Your task to perform on an android device: Open location settings Image 0: 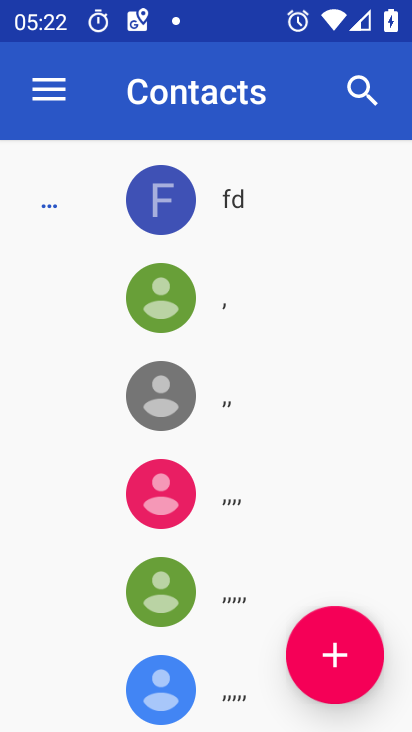
Step 0: press home button
Your task to perform on an android device: Open location settings Image 1: 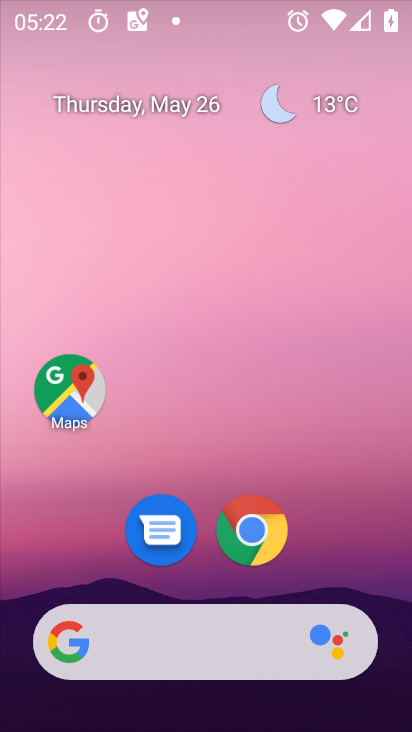
Step 1: drag from (356, 670) to (405, 58)
Your task to perform on an android device: Open location settings Image 2: 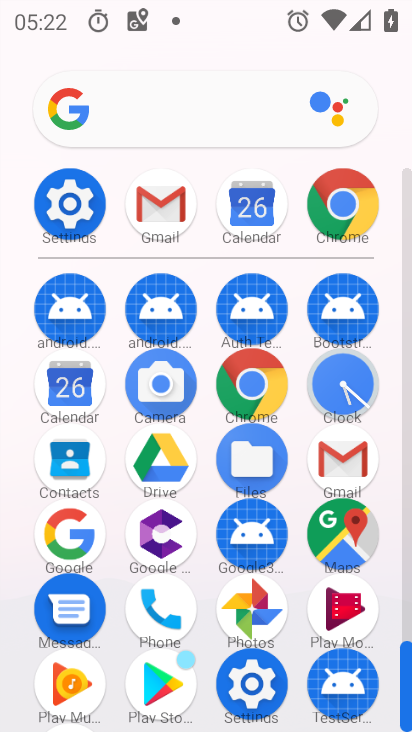
Step 2: click (69, 206)
Your task to perform on an android device: Open location settings Image 3: 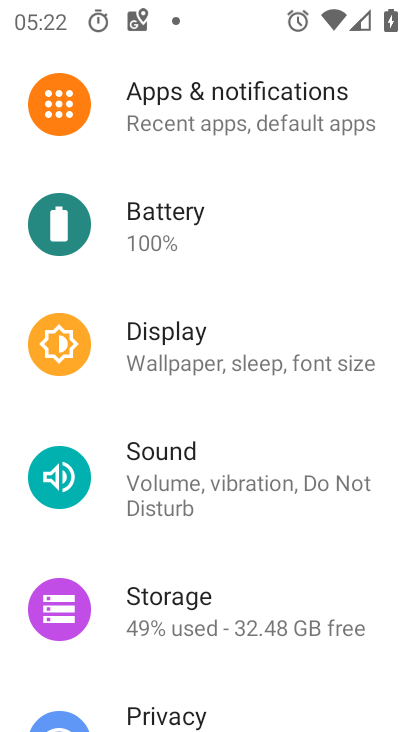
Step 3: drag from (281, 220) to (311, 724)
Your task to perform on an android device: Open location settings Image 4: 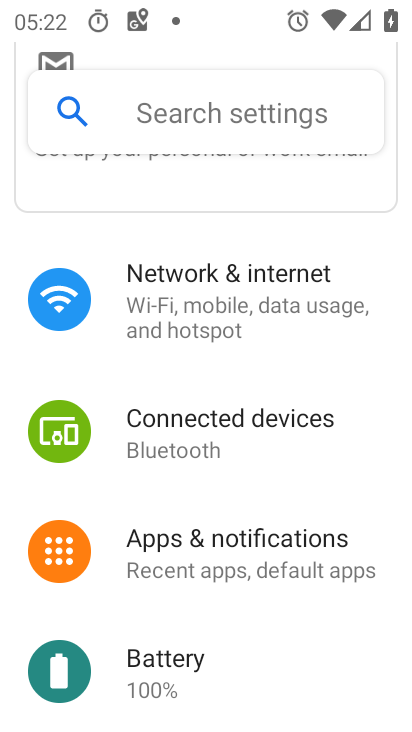
Step 4: drag from (234, 605) to (260, 132)
Your task to perform on an android device: Open location settings Image 5: 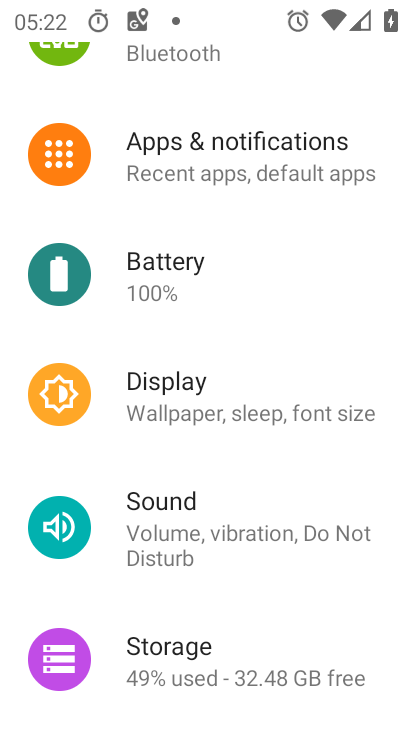
Step 5: drag from (237, 664) to (264, 209)
Your task to perform on an android device: Open location settings Image 6: 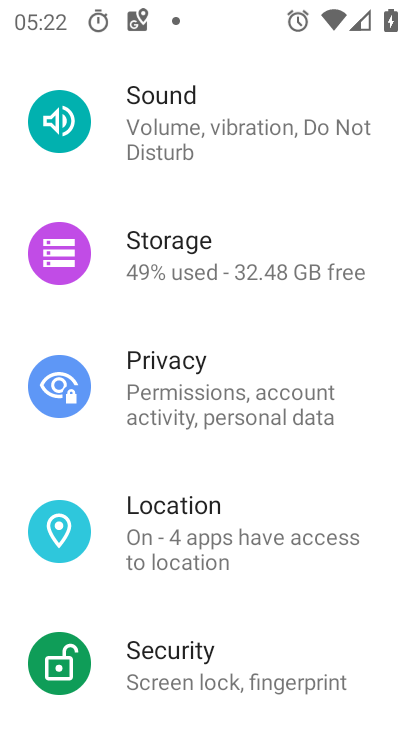
Step 6: click (254, 505)
Your task to perform on an android device: Open location settings Image 7: 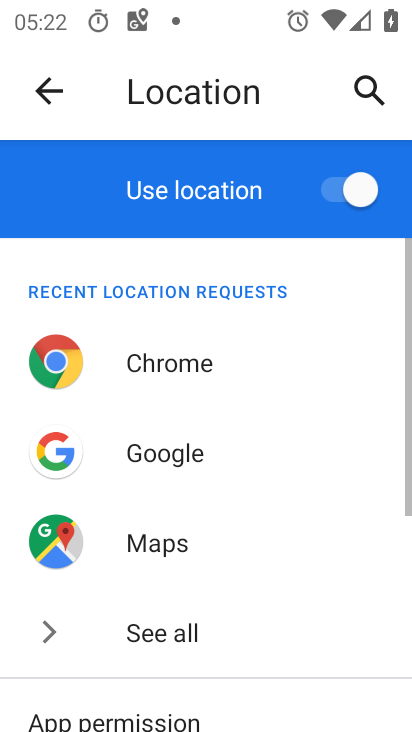
Step 7: task complete